Your task to perform on an android device: toggle notifications settings in the gmail app Image 0: 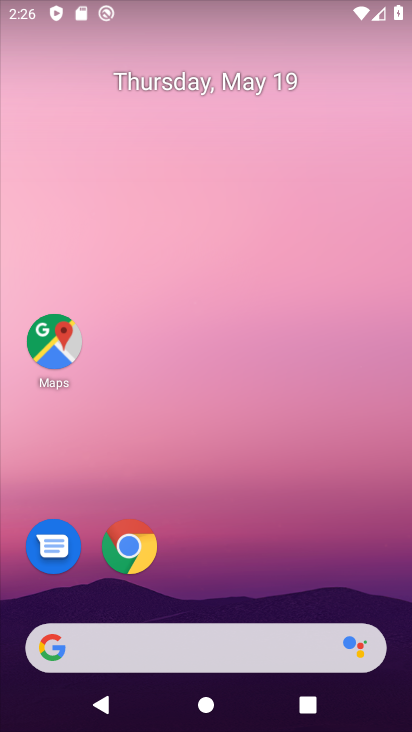
Step 0: drag from (297, 577) to (372, 13)
Your task to perform on an android device: toggle notifications settings in the gmail app Image 1: 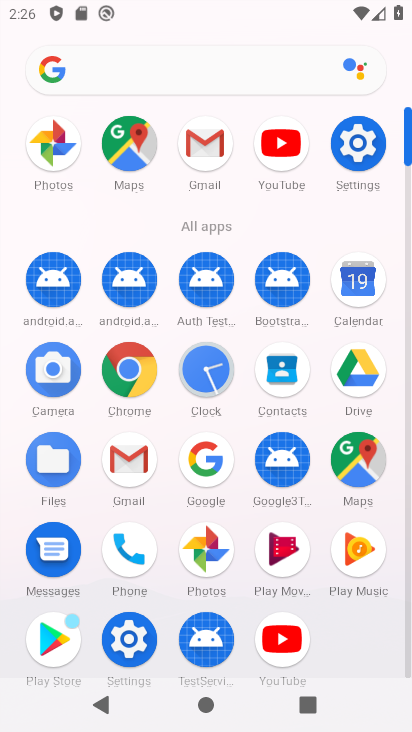
Step 1: click (201, 145)
Your task to perform on an android device: toggle notifications settings in the gmail app Image 2: 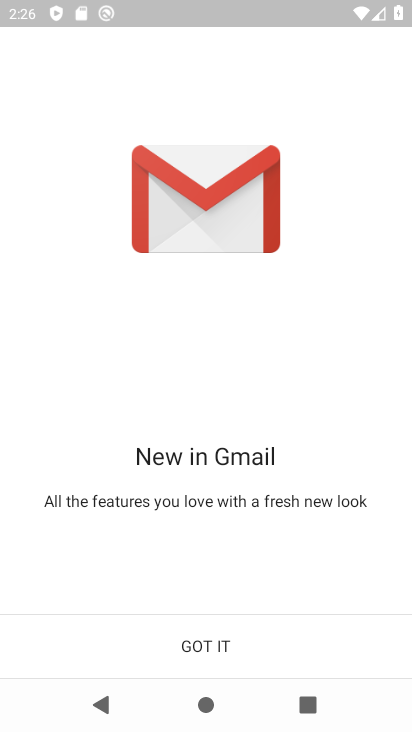
Step 2: click (205, 638)
Your task to perform on an android device: toggle notifications settings in the gmail app Image 3: 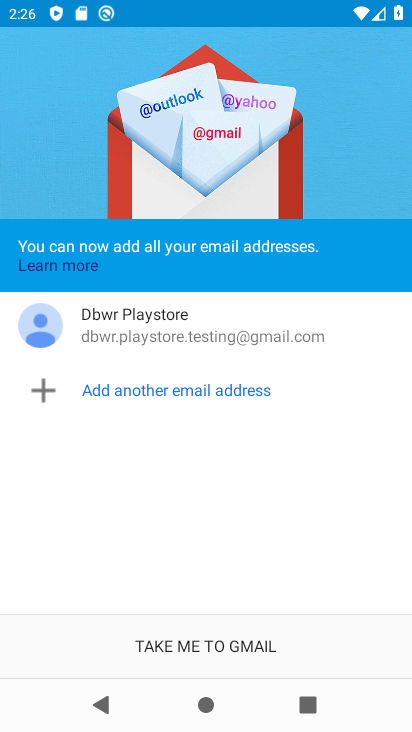
Step 3: click (206, 638)
Your task to perform on an android device: toggle notifications settings in the gmail app Image 4: 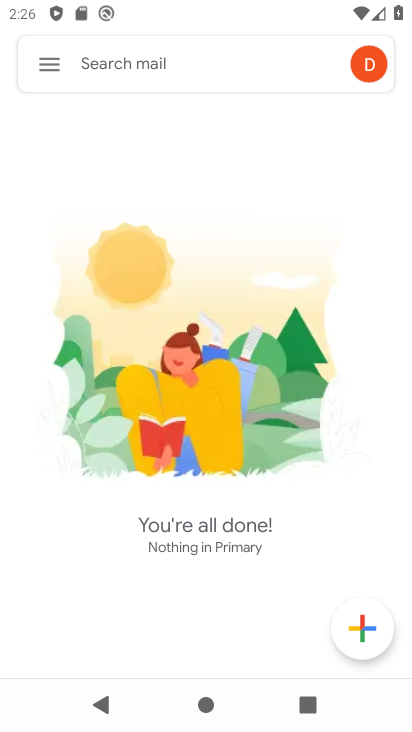
Step 4: click (47, 65)
Your task to perform on an android device: toggle notifications settings in the gmail app Image 5: 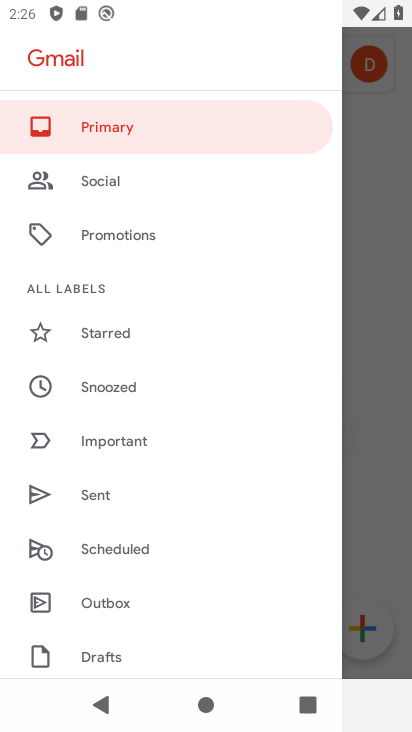
Step 5: drag from (118, 477) to (159, 396)
Your task to perform on an android device: toggle notifications settings in the gmail app Image 6: 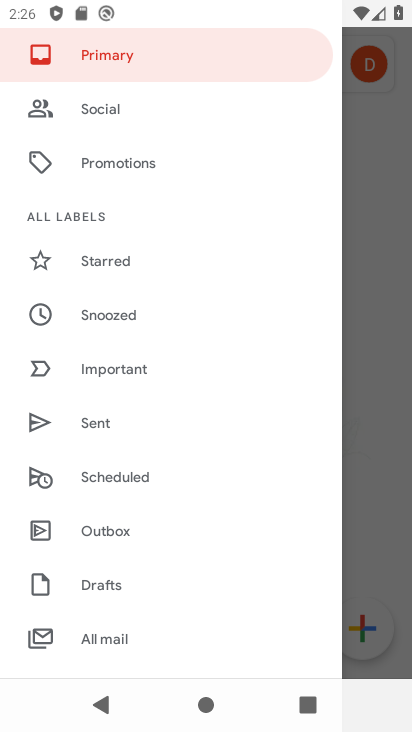
Step 6: drag from (93, 506) to (145, 432)
Your task to perform on an android device: toggle notifications settings in the gmail app Image 7: 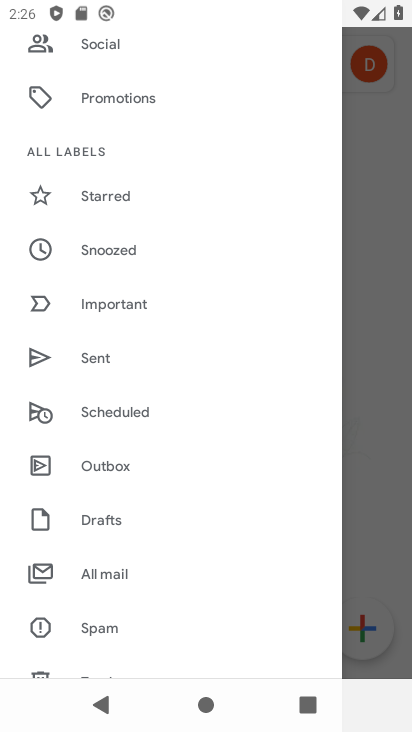
Step 7: drag from (88, 594) to (153, 492)
Your task to perform on an android device: toggle notifications settings in the gmail app Image 8: 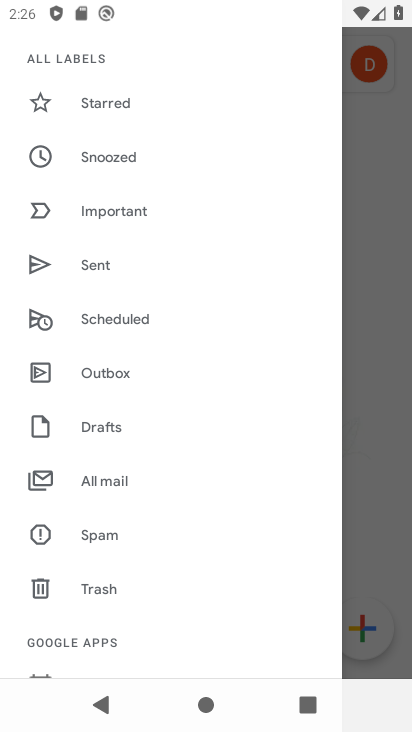
Step 8: drag from (106, 563) to (145, 478)
Your task to perform on an android device: toggle notifications settings in the gmail app Image 9: 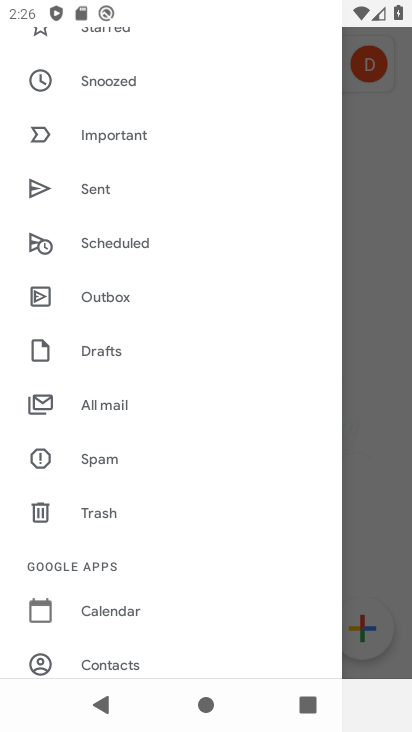
Step 9: drag from (101, 633) to (129, 557)
Your task to perform on an android device: toggle notifications settings in the gmail app Image 10: 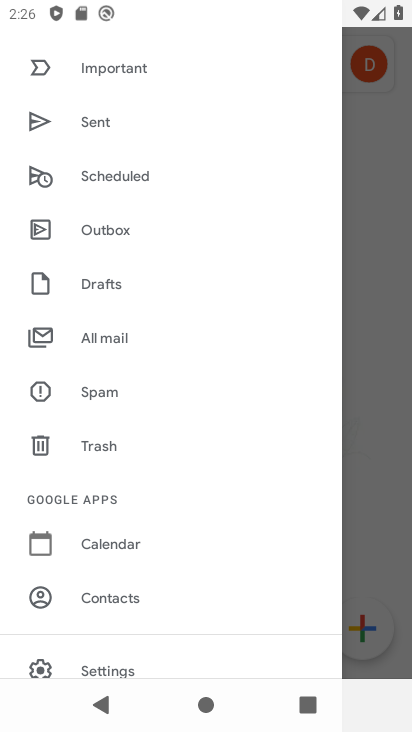
Step 10: drag from (96, 648) to (138, 573)
Your task to perform on an android device: toggle notifications settings in the gmail app Image 11: 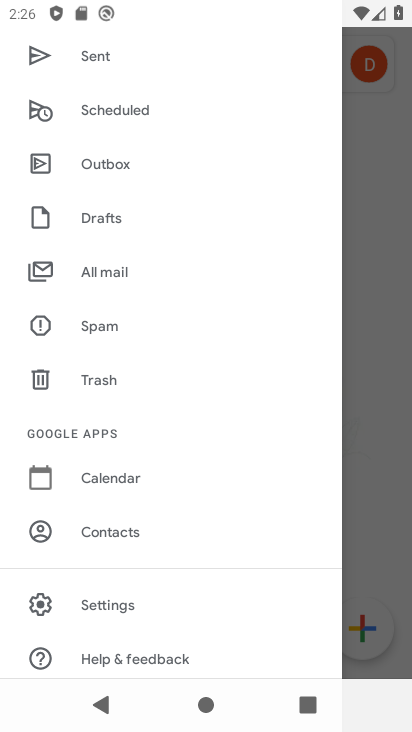
Step 11: click (111, 610)
Your task to perform on an android device: toggle notifications settings in the gmail app Image 12: 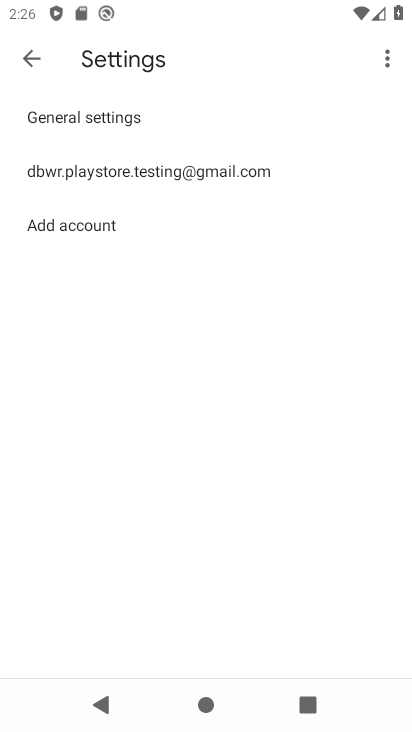
Step 12: click (176, 165)
Your task to perform on an android device: toggle notifications settings in the gmail app Image 13: 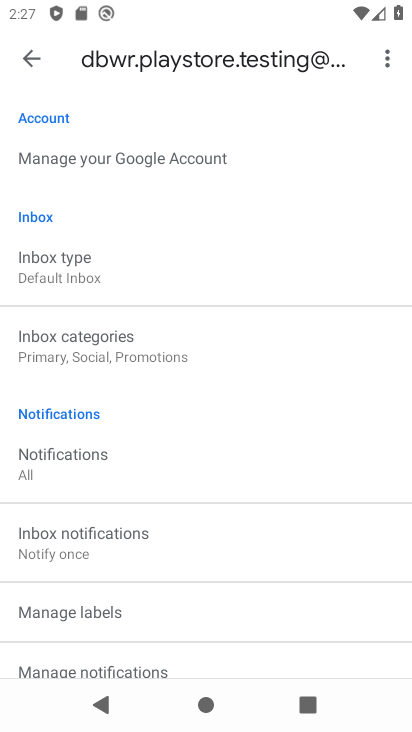
Step 13: drag from (162, 548) to (192, 443)
Your task to perform on an android device: toggle notifications settings in the gmail app Image 14: 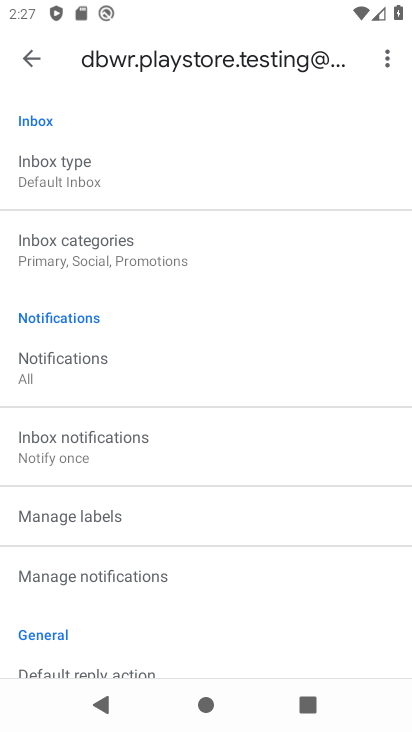
Step 14: click (122, 582)
Your task to perform on an android device: toggle notifications settings in the gmail app Image 15: 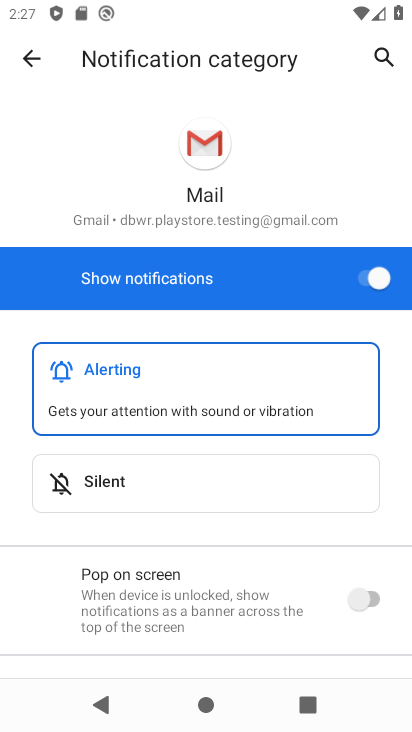
Step 15: click (385, 280)
Your task to perform on an android device: toggle notifications settings in the gmail app Image 16: 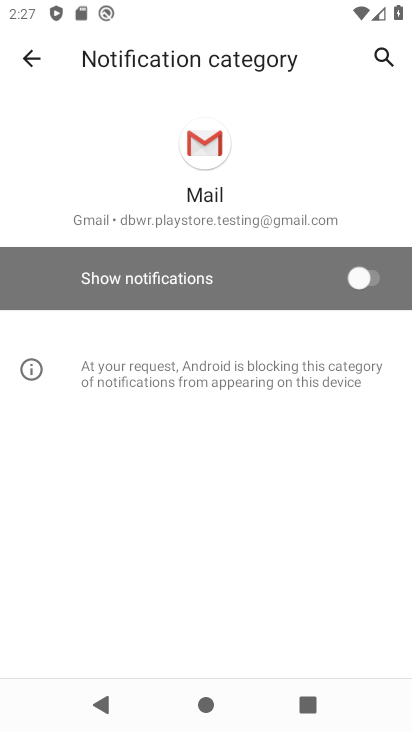
Step 16: task complete